Your task to perform on an android device: Open Yahoo.com Image 0: 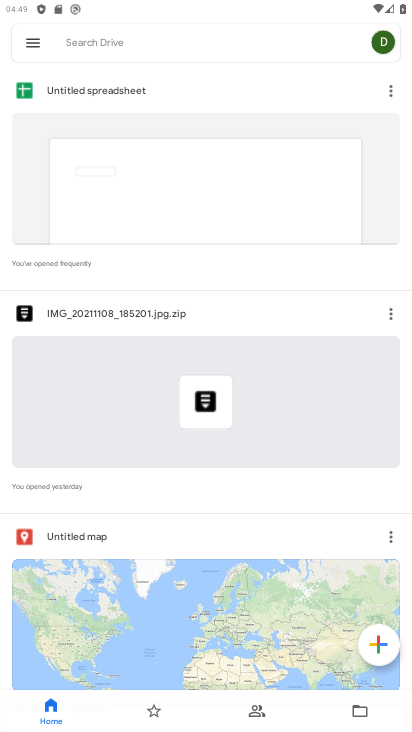
Step 0: press back button
Your task to perform on an android device: Open Yahoo.com Image 1: 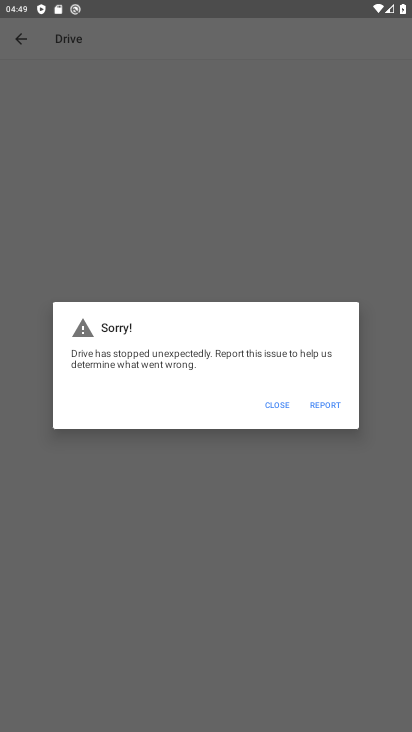
Step 1: press home button
Your task to perform on an android device: Open Yahoo.com Image 2: 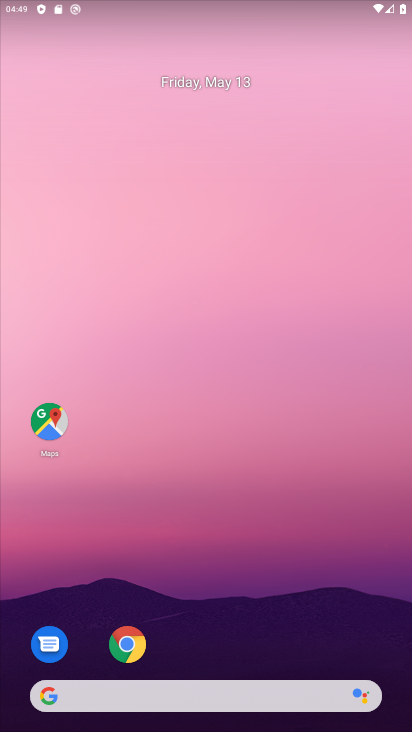
Step 2: click (132, 631)
Your task to perform on an android device: Open Yahoo.com Image 3: 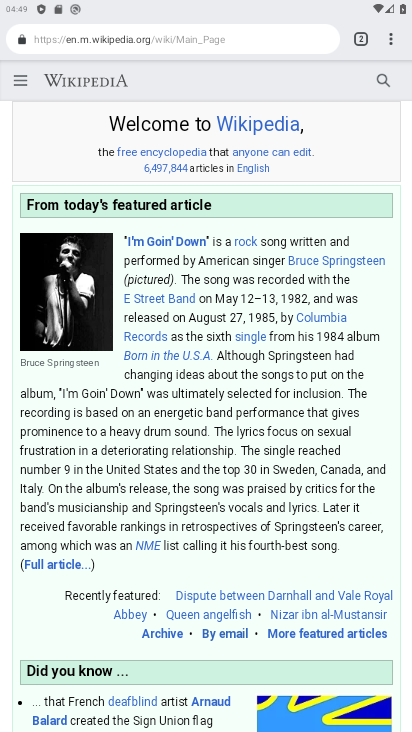
Step 3: click (364, 32)
Your task to perform on an android device: Open Yahoo.com Image 4: 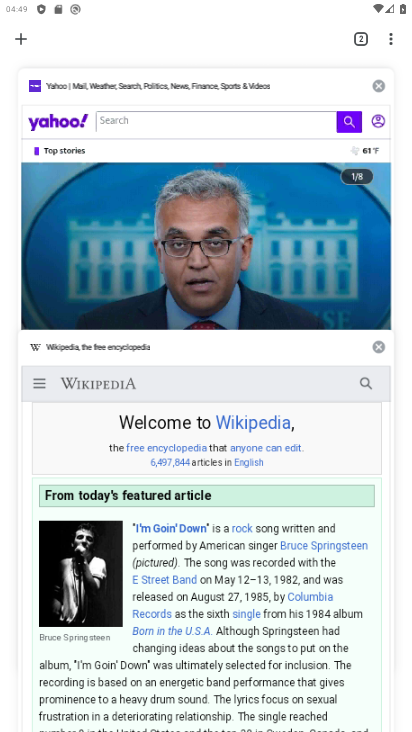
Step 4: click (110, 92)
Your task to perform on an android device: Open Yahoo.com Image 5: 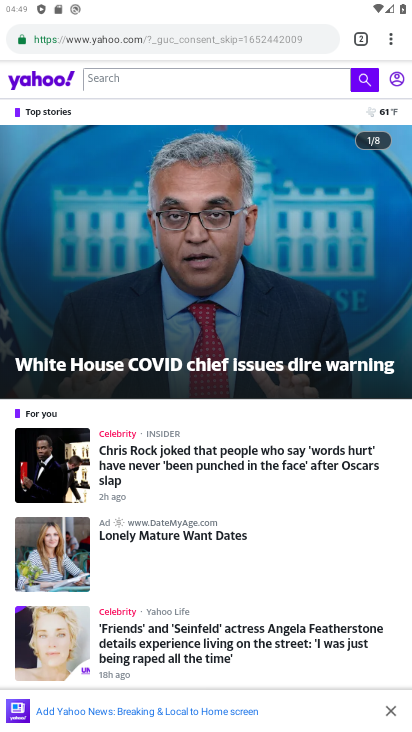
Step 5: task complete